Your task to perform on an android device: empty trash in the gmail app Image 0: 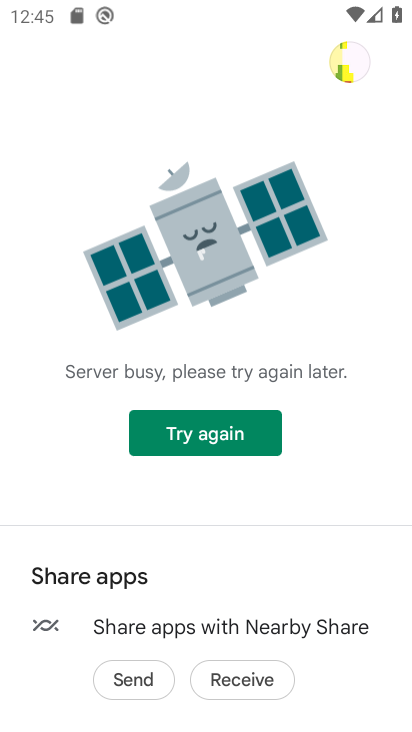
Step 0: press home button
Your task to perform on an android device: empty trash in the gmail app Image 1: 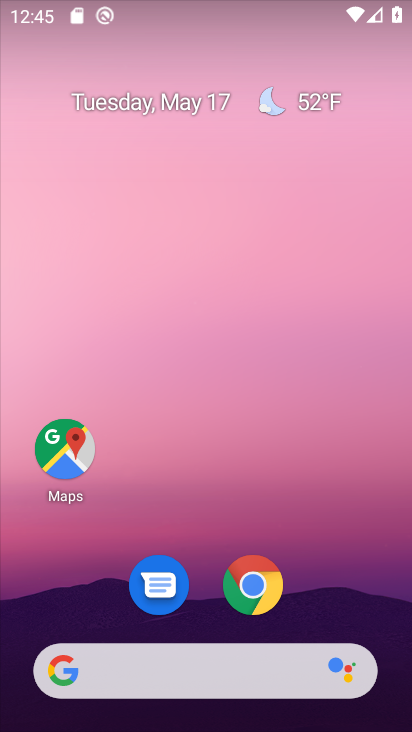
Step 1: drag from (228, 515) to (246, 89)
Your task to perform on an android device: empty trash in the gmail app Image 2: 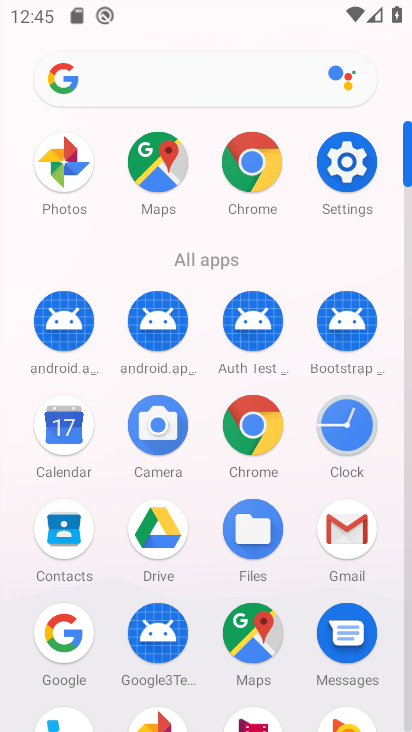
Step 2: click (326, 529)
Your task to perform on an android device: empty trash in the gmail app Image 3: 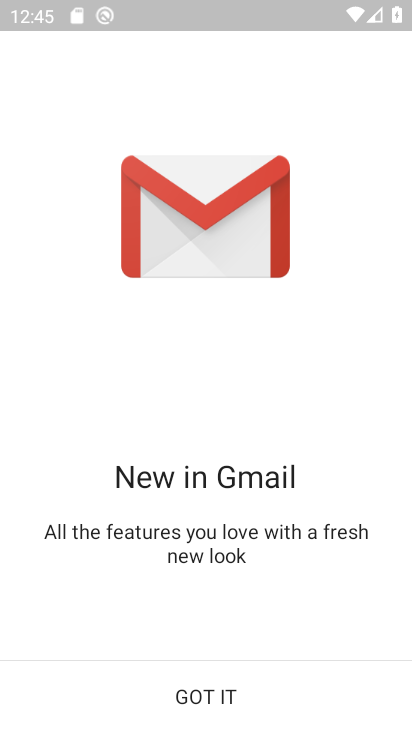
Step 3: click (260, 698)
Your task to perform on an android device: empty trash in the gmail app Image 4: 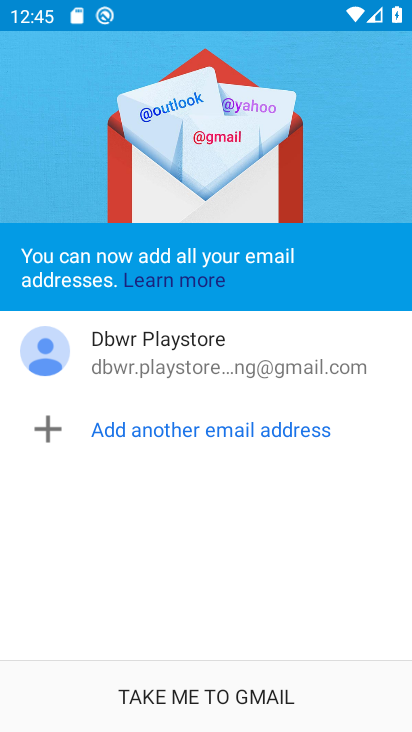
Step 4: click (263, 696)
Your task to perform on an android device: empty trash in the gmail app Image 5: 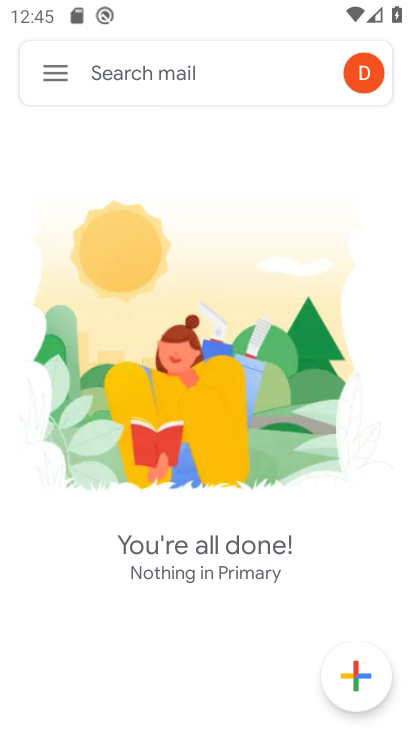
Step 5: click (53, 64)
Your task to perform on an android device: empty trash in the gmail app Image 6: 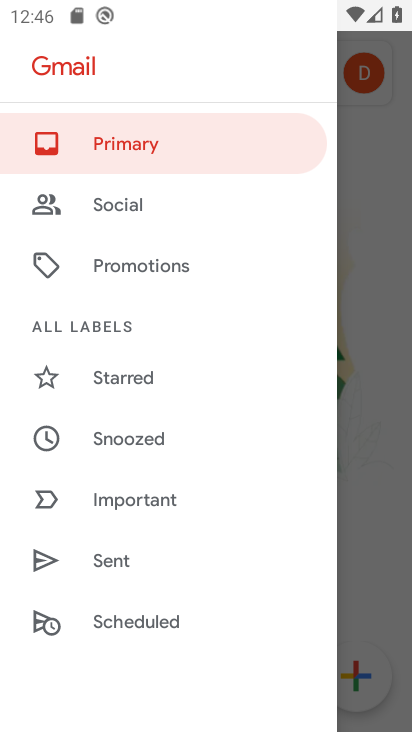
Step 6: drag from (188, 476) to (217, 157)
Your task to perform on an android device: empty trash in the gmail app Image 7: 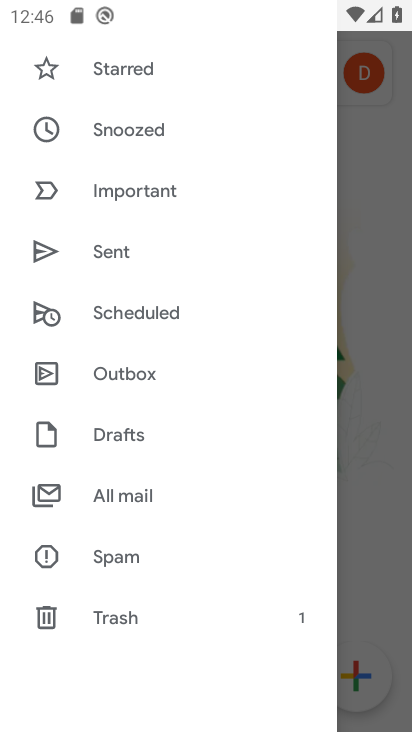
Step 7: click (141, 614)
Your task to perform on an android device: empty trash in the gmail app Image 8: 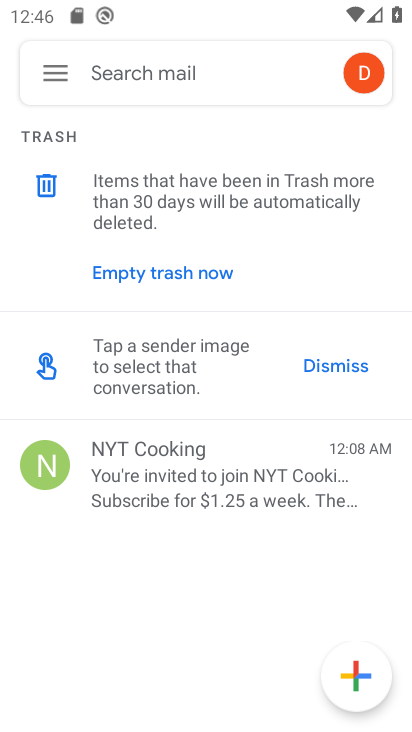
Step 8: click (206, 272)
Your task to perform on an android device: empty trash in the gmail app Image 9: 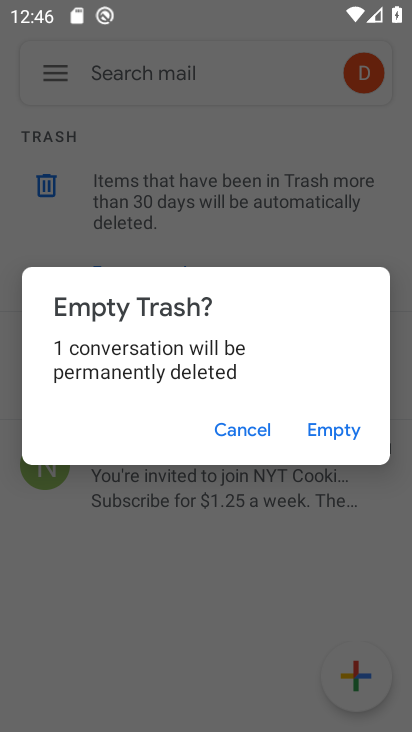
Step 9: click (339, 429)
Your task to perform on an android device: empty trash in the gmail app Image 10: 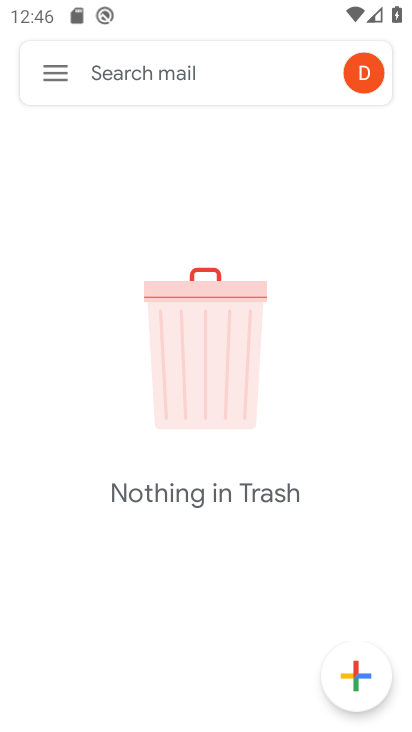
Step 10: task complete